Your task to perform on an android device: See recent photos Image 0: 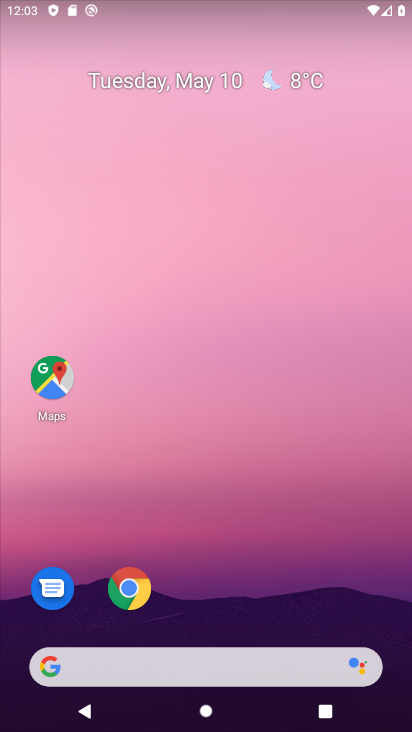
Step 0: click (226, 376)
Your task to perform on an android device: See recent photos Image 1: 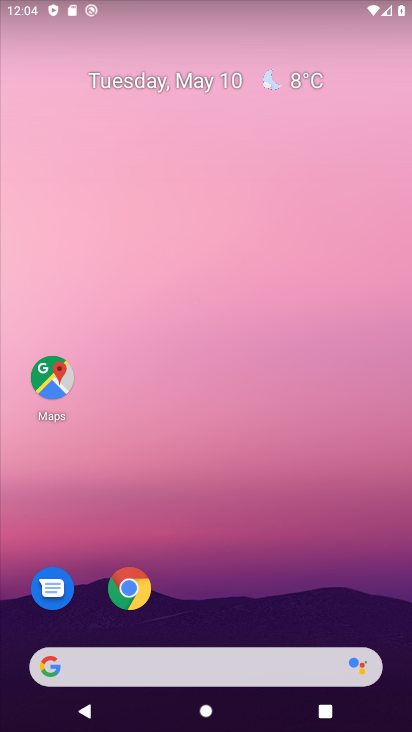
Step 1: drag from (210, 640) to (303, 60)
Your task to perform on an android device: See recent photos Image 2: 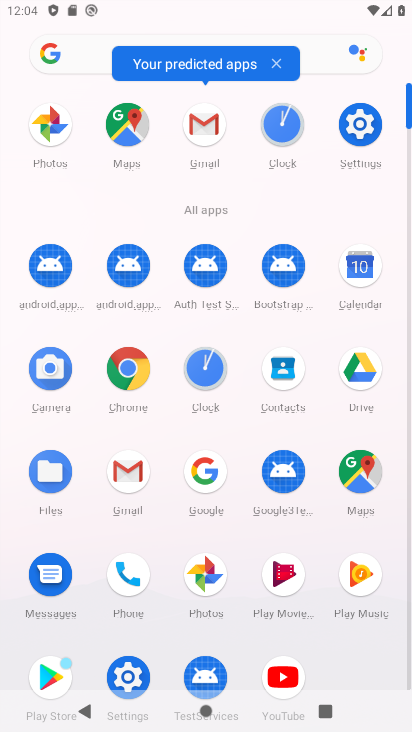
Step 2: click (207, 575)
Your task to perform on an android device: See recent photos Image 3: 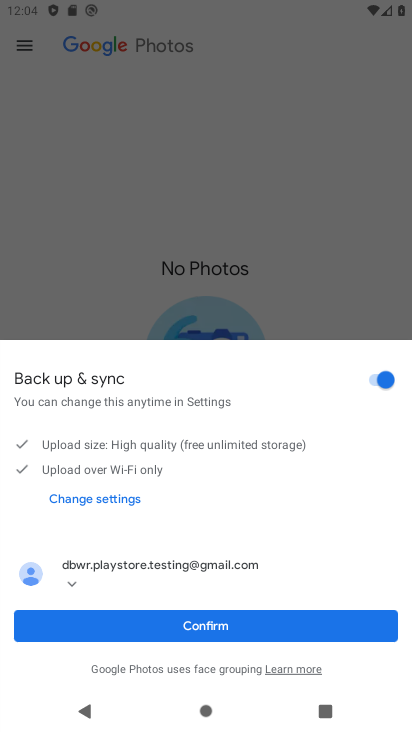
Step 3: click (207, 624)
Your task to perform on an android device: See recent photos Image 4: 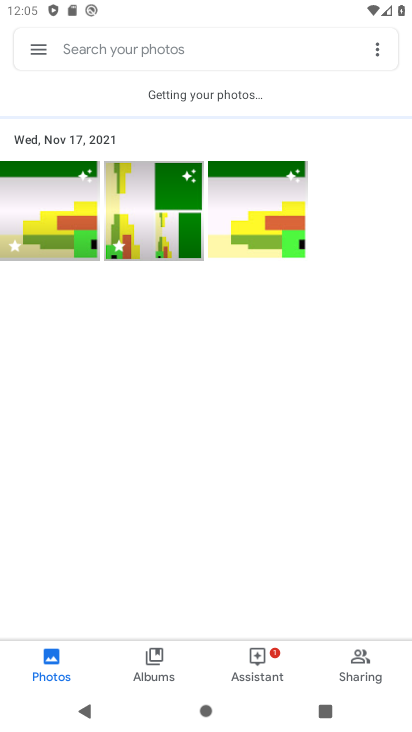
Step 4: task complete